Your task to perform on an android device: open sync settings in chrome Image 0: 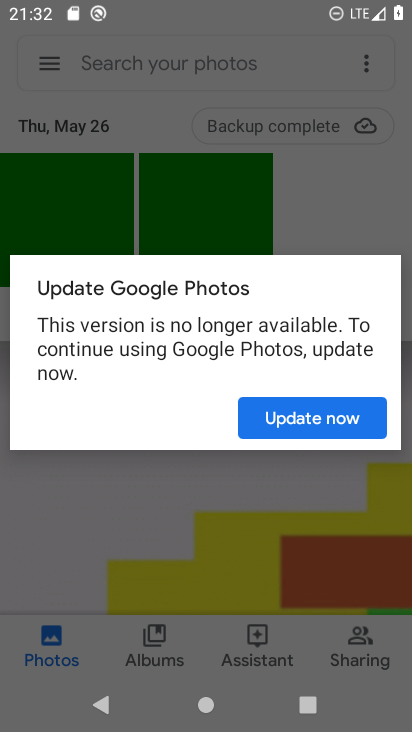
Step 0: press home button
Your task to perform on an android device: open sync settings in chrome Image 1: 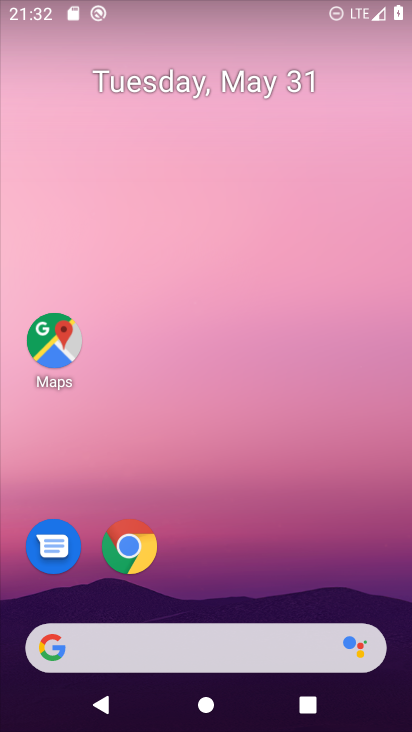
Step 1: click (138, 546)
Your task to perform on an android device: open sync settings in chrome Image 2: 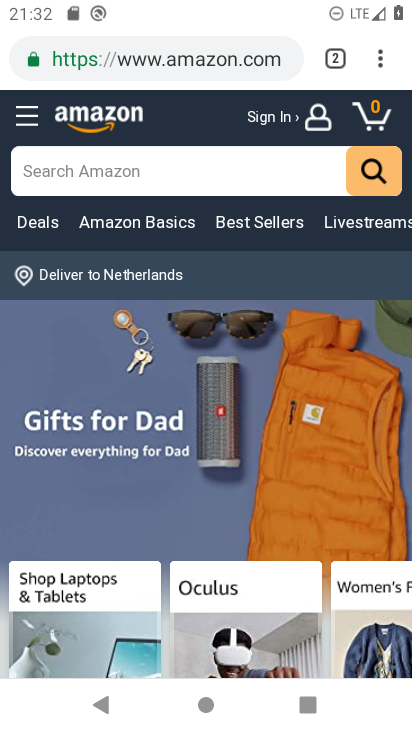
Step 2: click (377, 57)
Your task to perform on an android device: open sync settings in chrome Image 3: 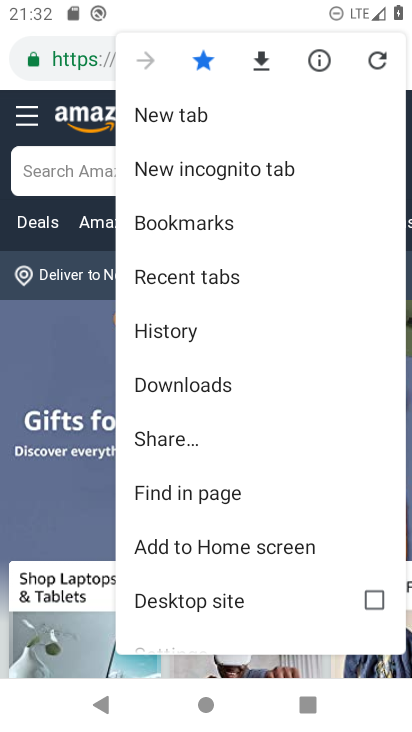
Step 3: drag from (288, 542) to (283, 266)
Your task to perform on an android device: open sync settings in chrome Image 4: 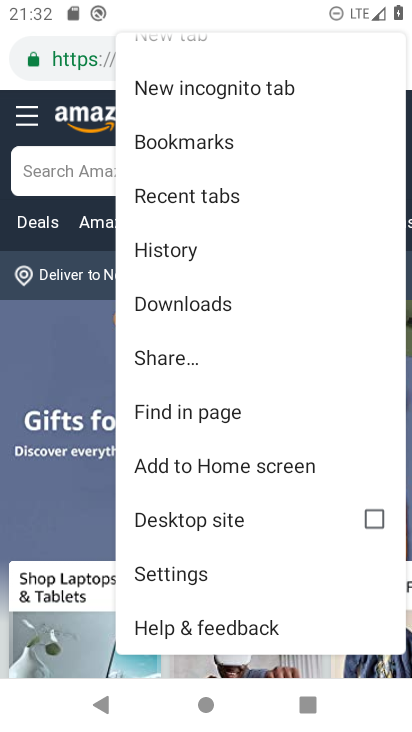
Step 4: click (172, 573)
Your task to perform on an android device: open sync settings in chrome Image 5: 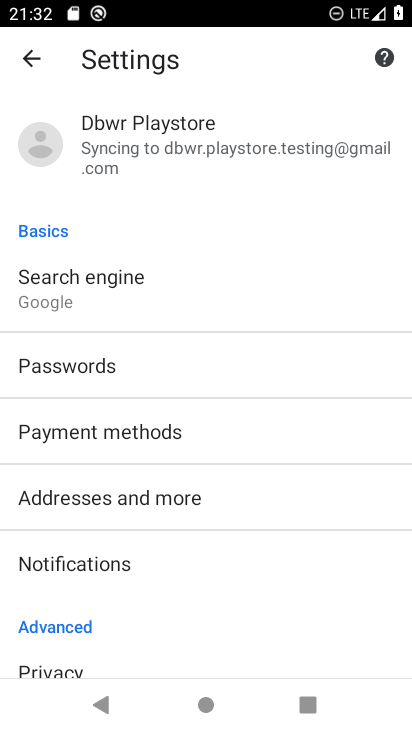
Step 5: drag from (226, 604) to (246, 288)
Your task to perform on an android device: open sync settings in chrome Image 6: 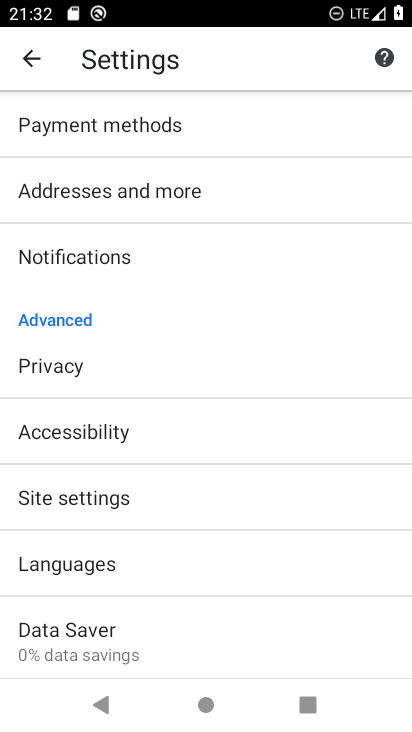
Step 6: drag from (262, 636) to (271, 306)
Your task to perform on an android device: open sync settings in chrome Image 7: 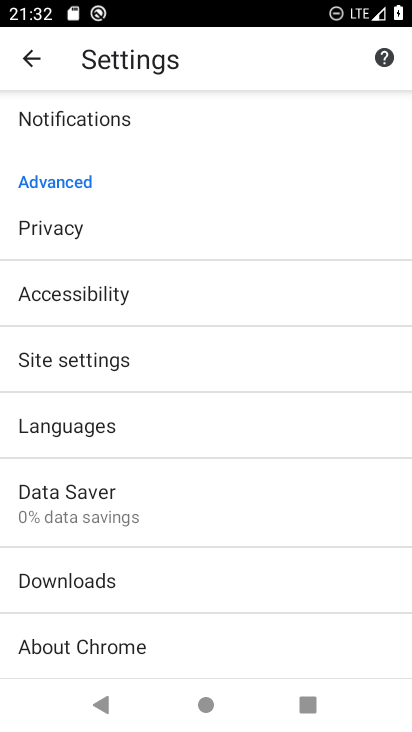
Step 7: click (72, 354)
Your task to perform on an android device: open sync settings in chrome Image 8: 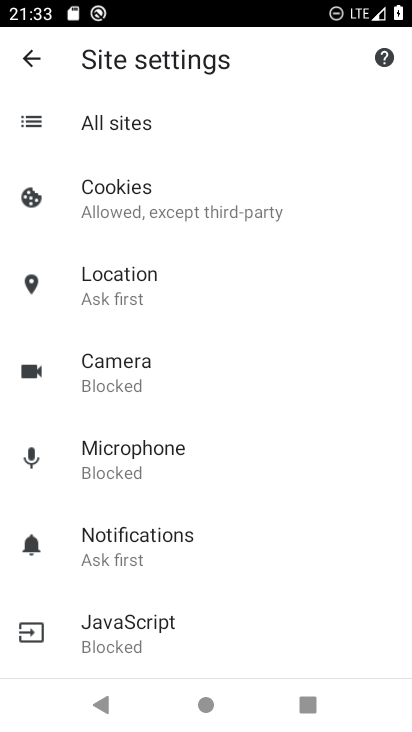
Step 8: drag from (220, 614) to (250, 267)
Your task to perform on an android device: open sync settings in chrome Image 9: 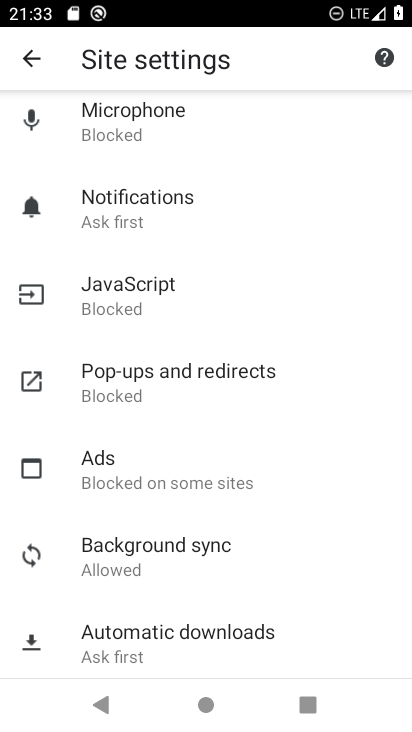
Step 9: click (135, 549)
Your task to perform on an android device: open sync settings in chrome Image 10: 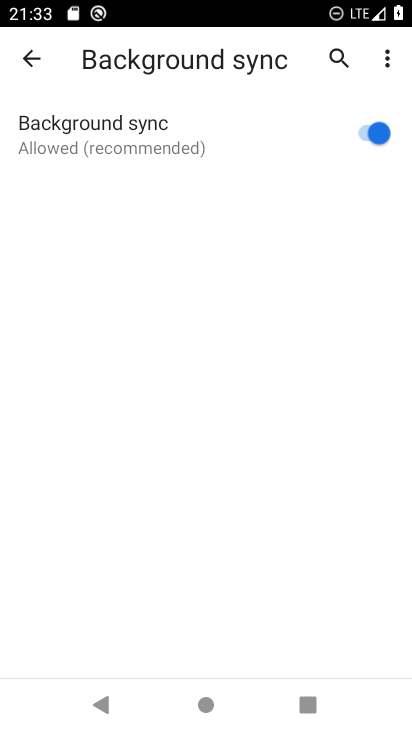
Step 10: task complete